Your task to perform on an android device: change the clock style Image 0: 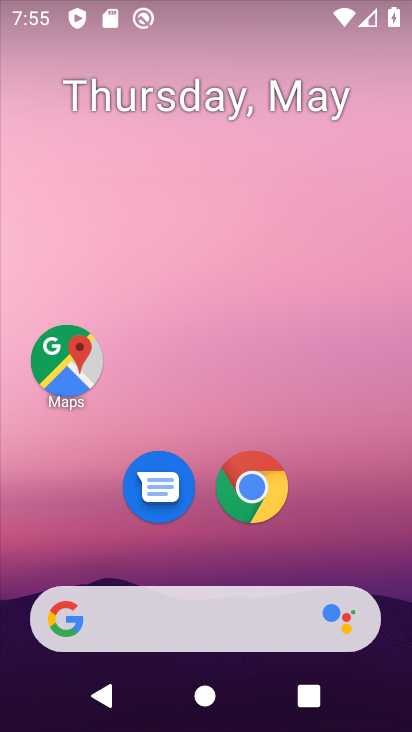
Step 0: drag from (155, 723) to (149, 178)
Your task to perform on an android device: change the clock style Image 1: 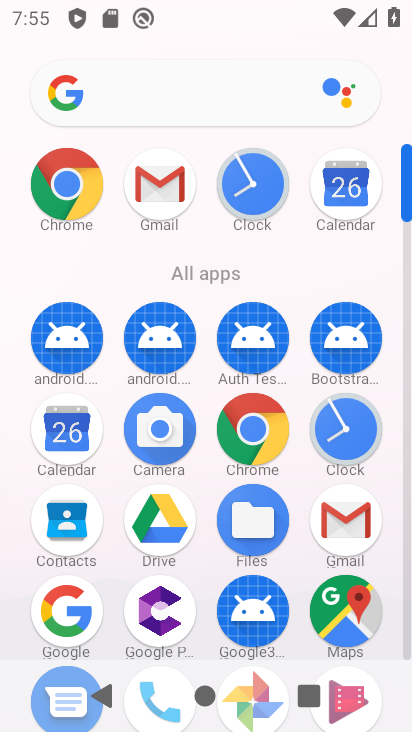
Step 1: click (346, 441)
Your task to perform on an android device: change the clock style Image 2: 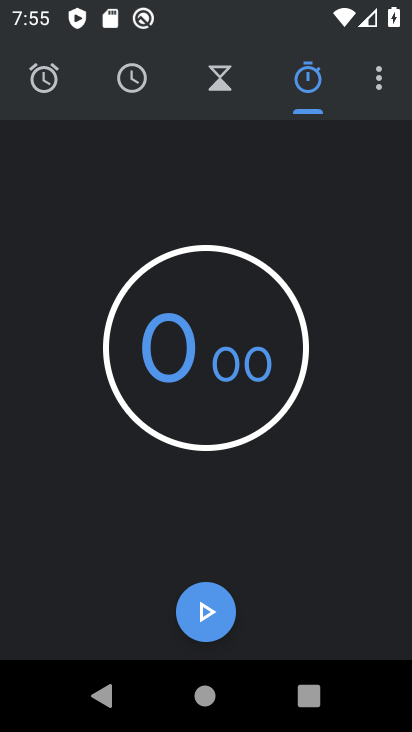
Step 2: click (383, 88)
Your task to perform on an android device: change the clock style Image 3: 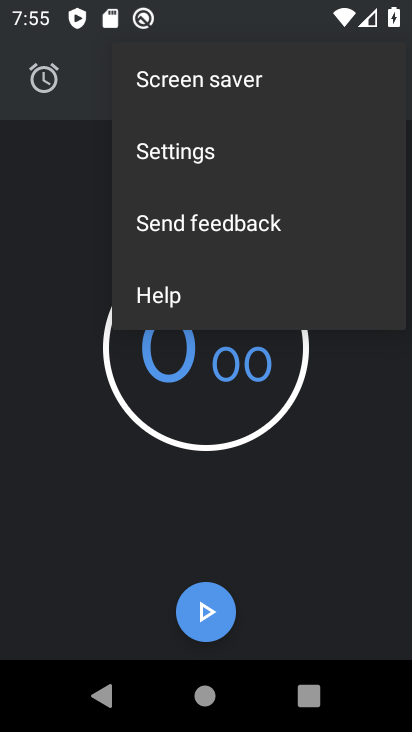
Step 3: click (179, 165)
Your task to perform on an android device: change the clock style Image 4: 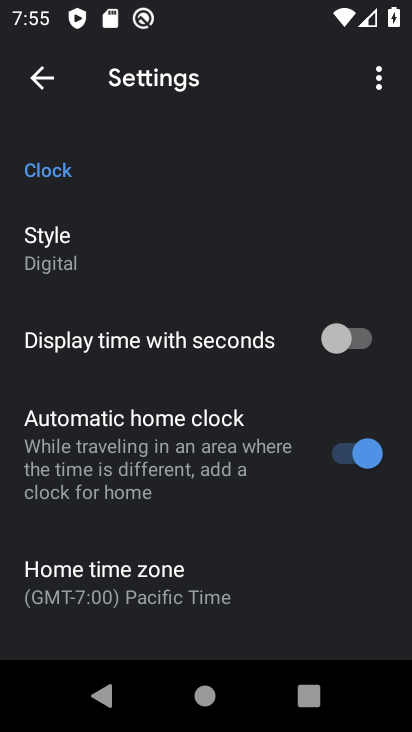
Step 4: click (70, 273)
Your task to perform on an android device: change the clock style Image 5: 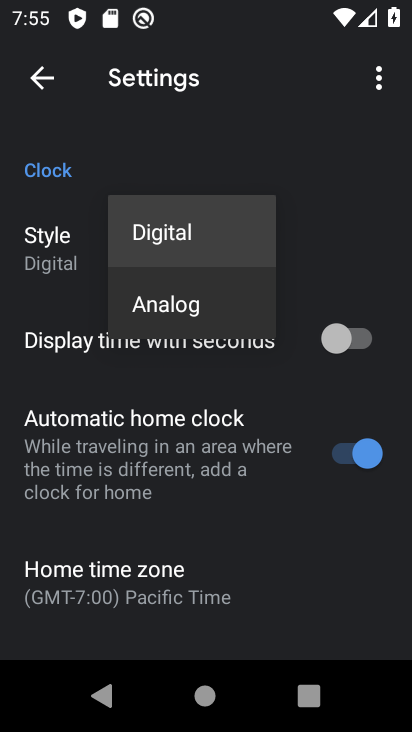
Step 5: click (192, 315)
Your task to perform on an android device: change the clock style Image 6: 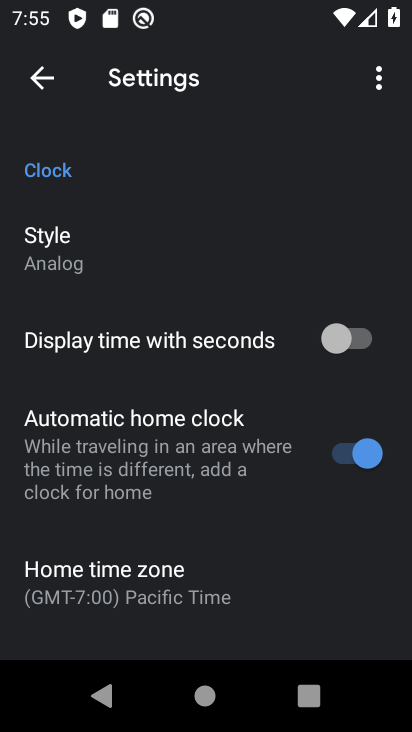
Step 6: task complete